Your task to perform on an android device: Search for Mexican restaurants on Maps Image 0: 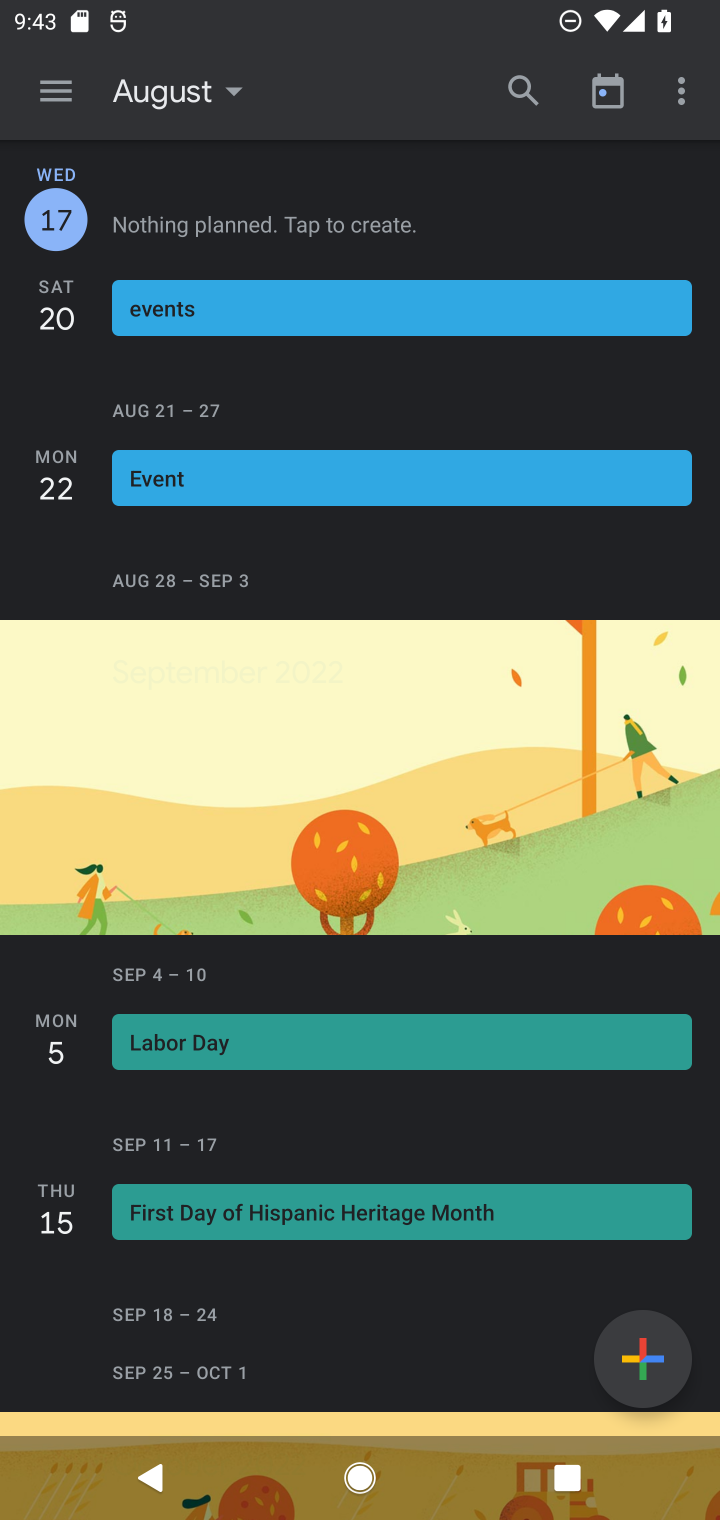
Step 0: press home button
Your task to perform on an android device: Search for Mexican restaurants on Maps Image 1: 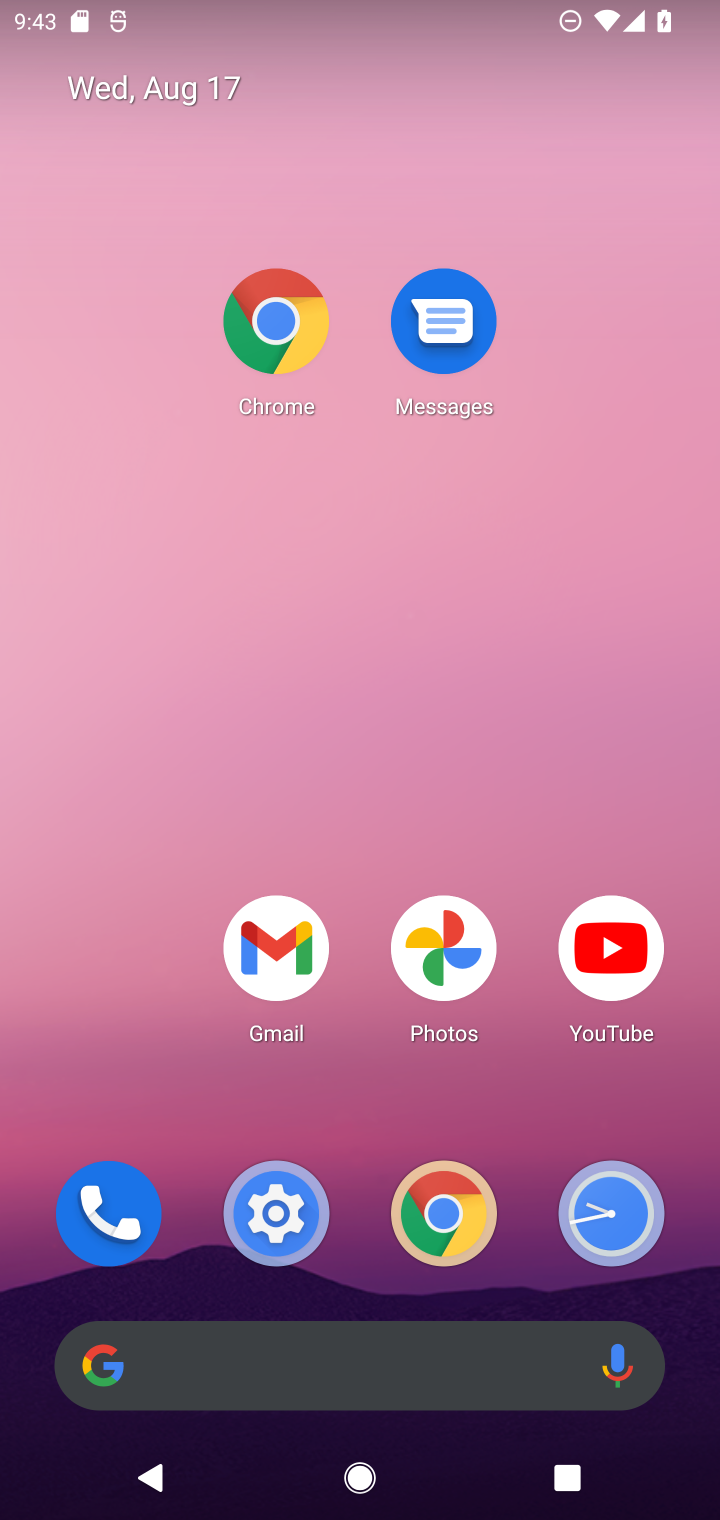
Step 1: drag from (363, 1164) to (363, 40)
Your task to perform on an android device: Search for Mexican restaurants on Maps Image 2: 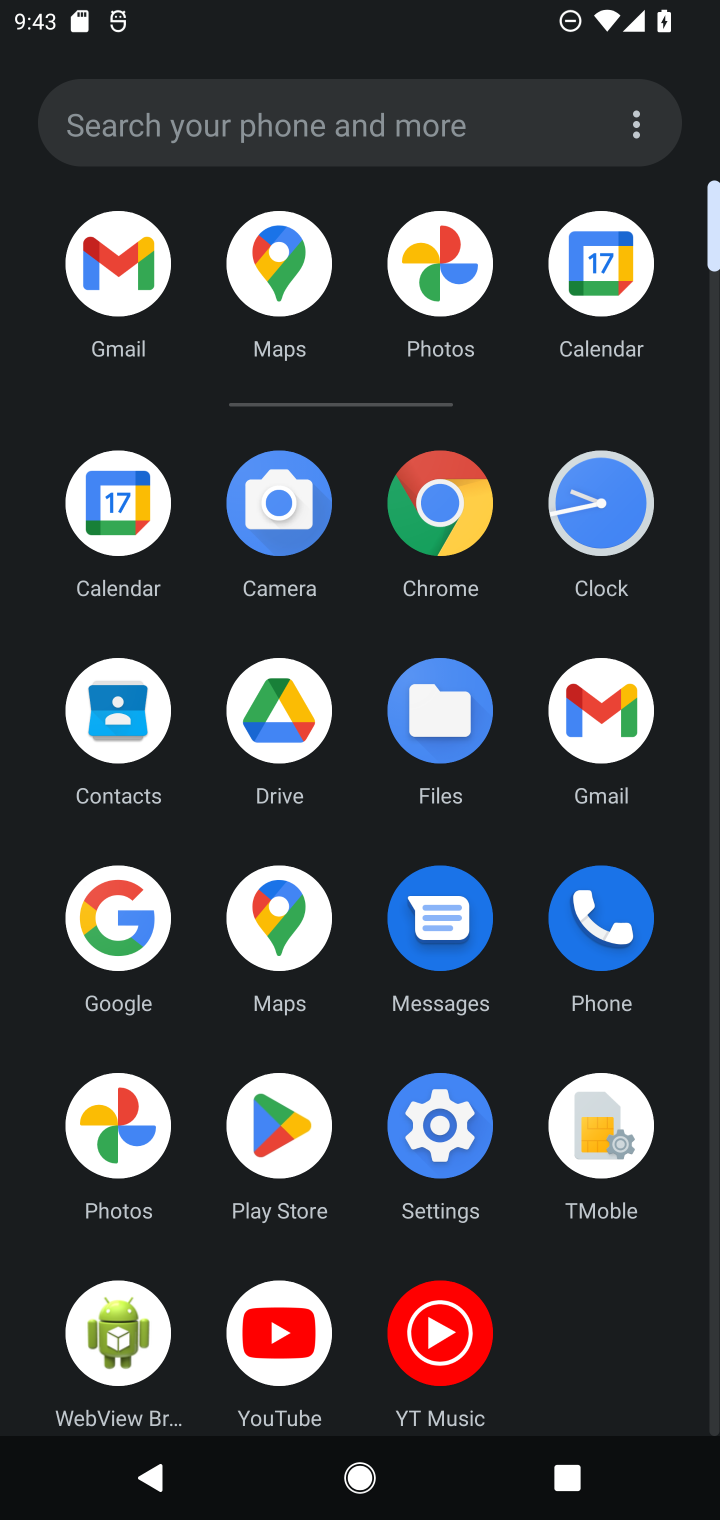
Step 2: click (299, 904)
Your task to perform on an android device: Search for Mexican restaurants on Maps Image 3: 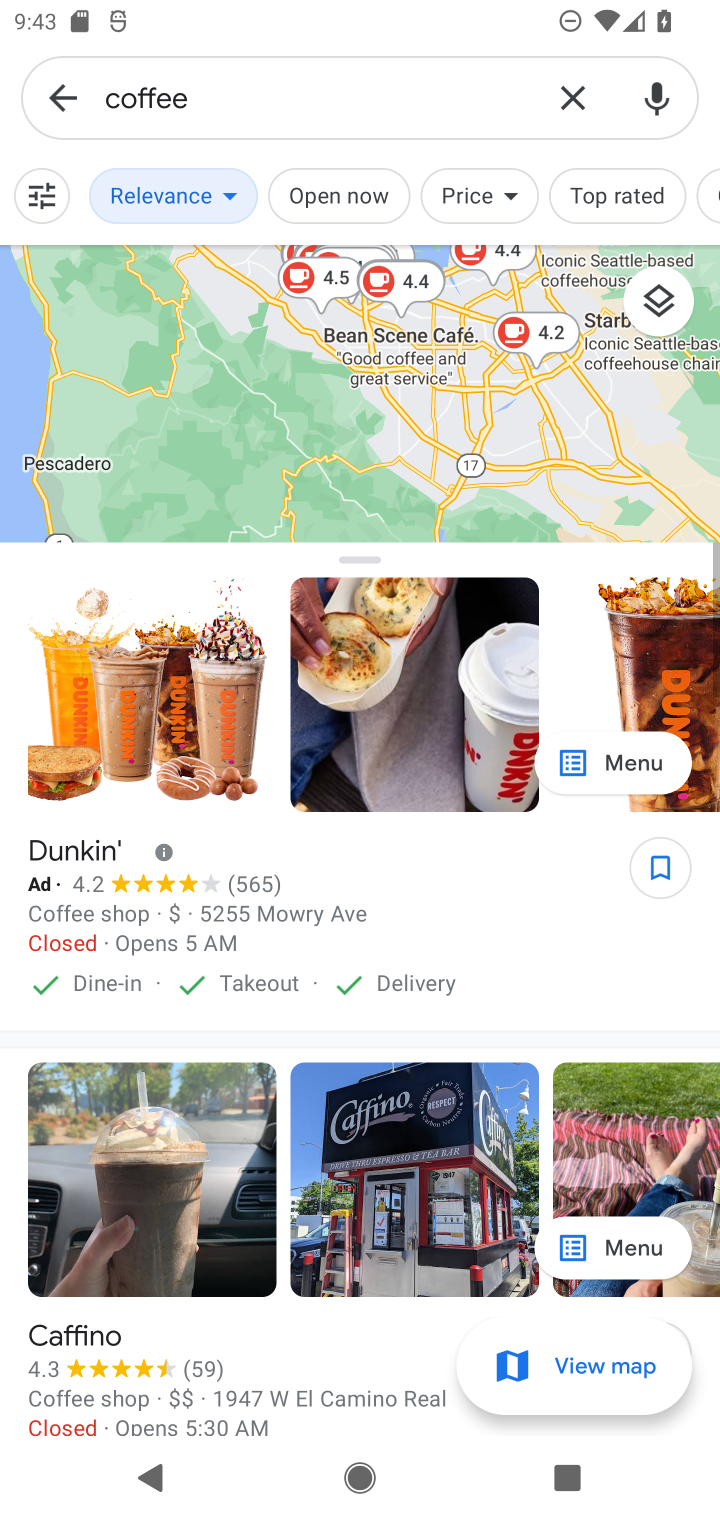
Step 3: click (555, 91)
Your task to perform on an android device: Search for Mexican restaurants on Maps Image 4: 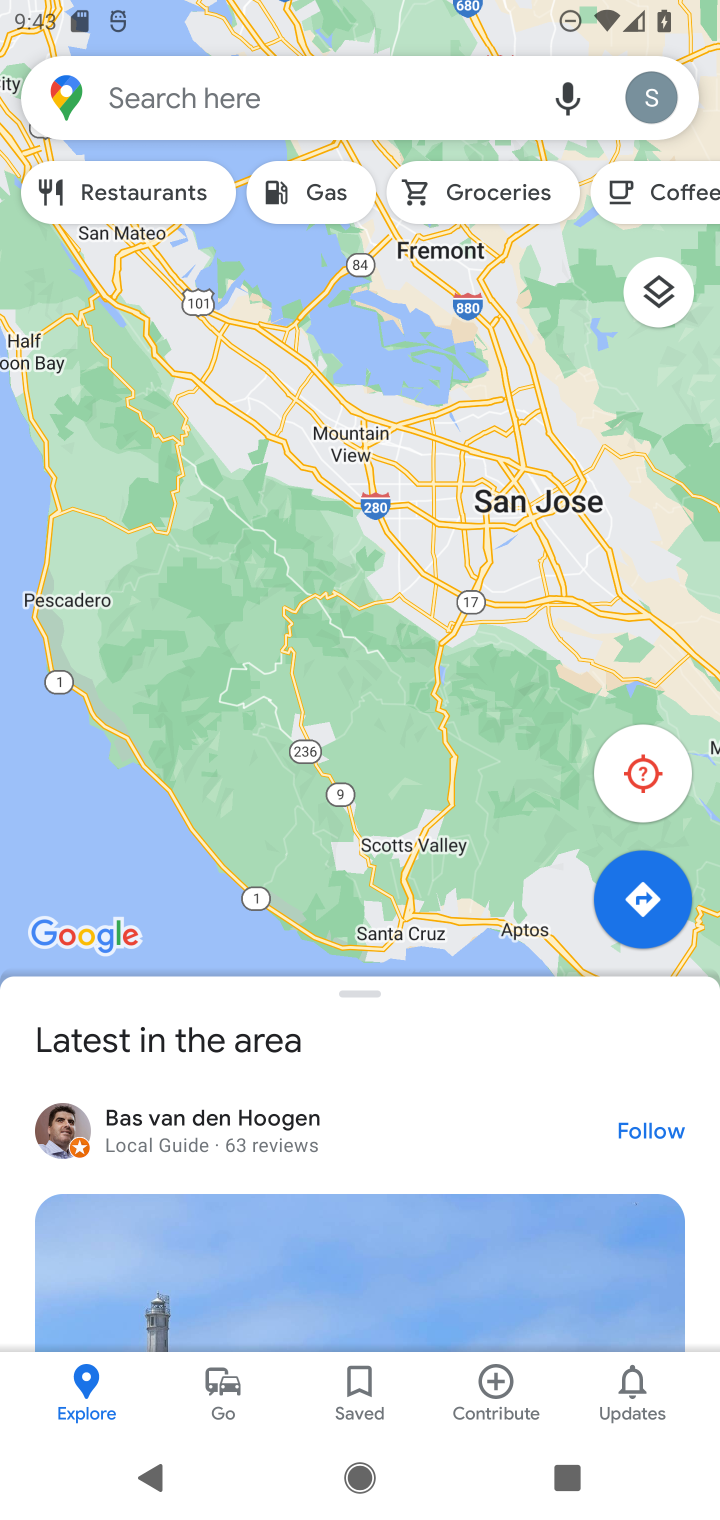
Step 4: click (375, 119)
Your task to perform on an android device: Search for Mexican restaurants on Maps Image 5: 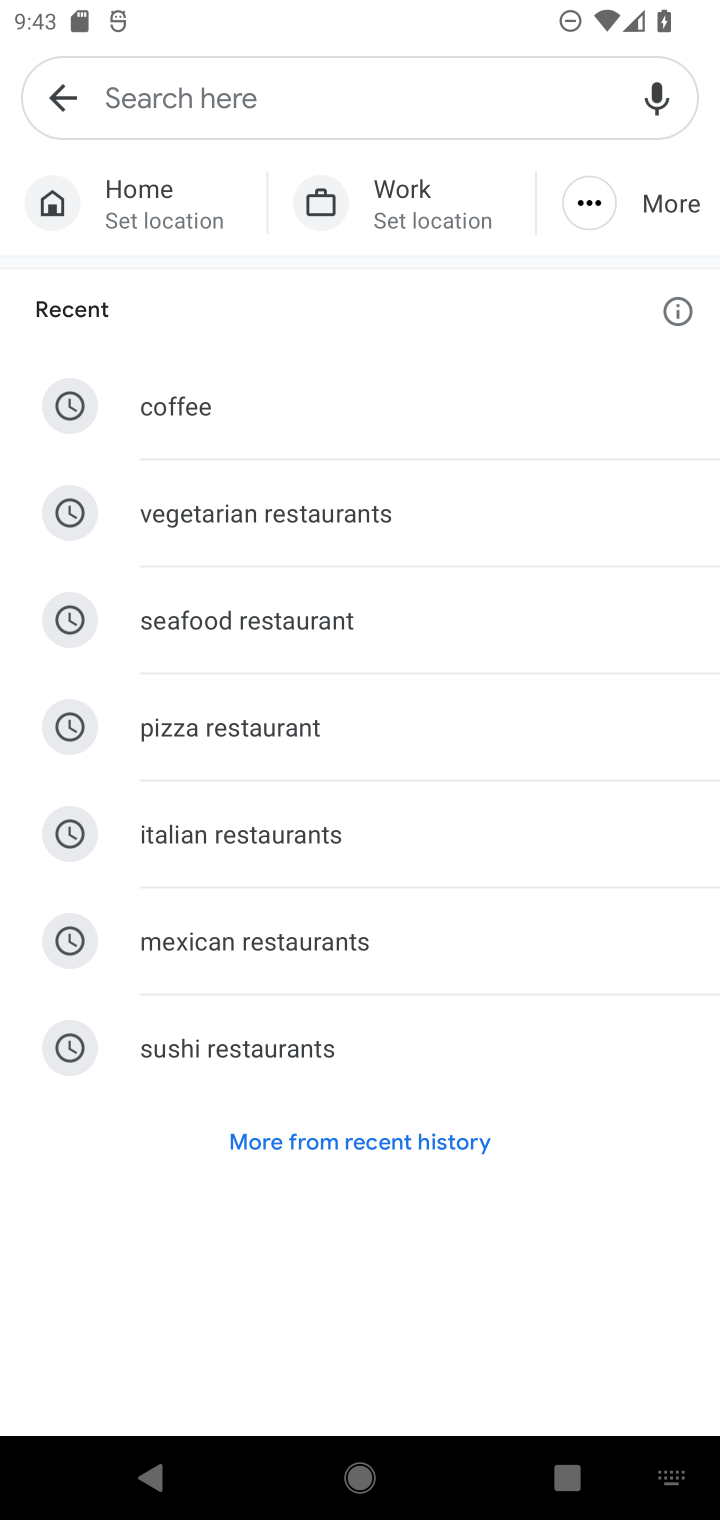
Step 5: click (347, 932)
Your task to perform on an android device: Search for Mexican restaurants on Maps Image 6: 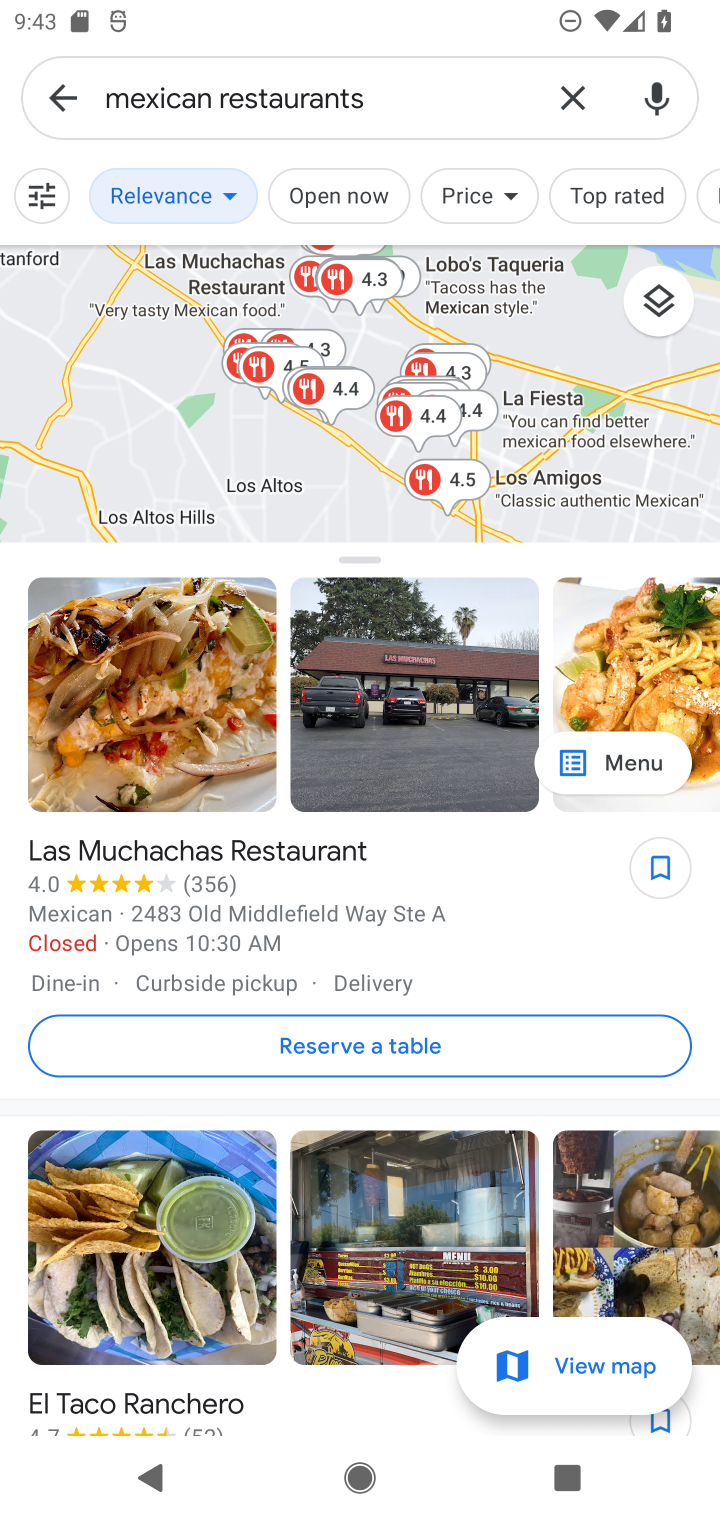
Step 6: task complete